Your task to perform on an android device: Open Maps and search for coffee Image 0: 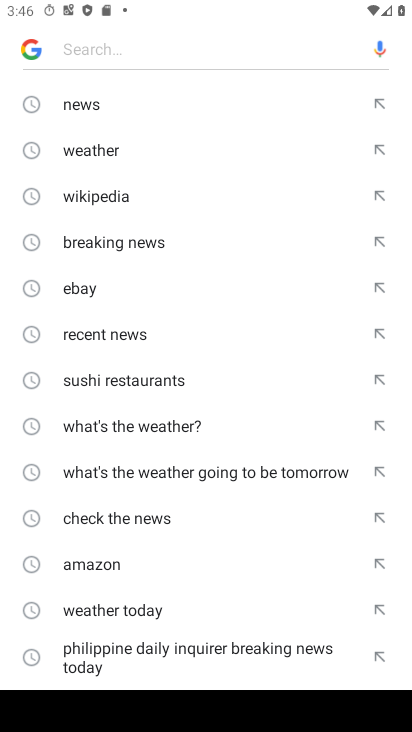
Step 0: press home button
Your task to perform on an android device: Open Maps and search for coffee Image 1: 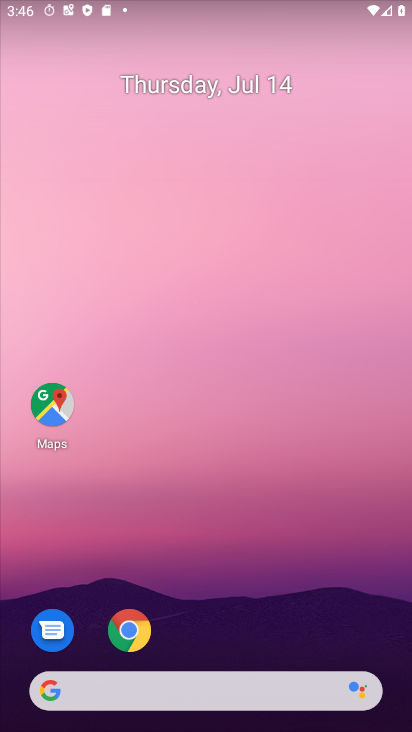
Step 1: drag from (248, 712) to (255, 169)
Your task to perform on an android device: Open Maps and search for coffee Image 2: 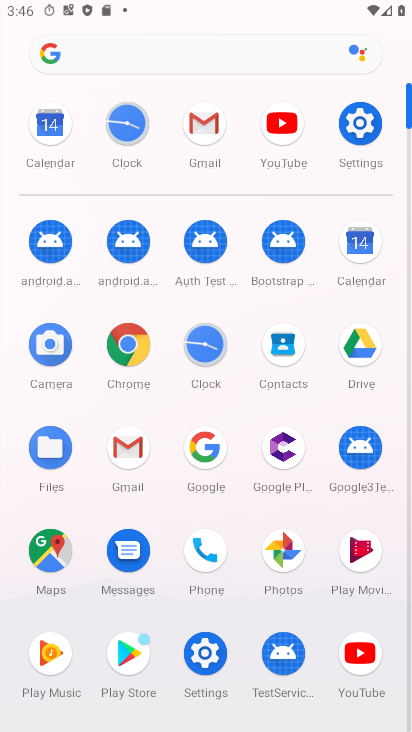
Step 2: click (60, 563)
Your task to perform on an android device: Open Maps and search for coffee Image 3: 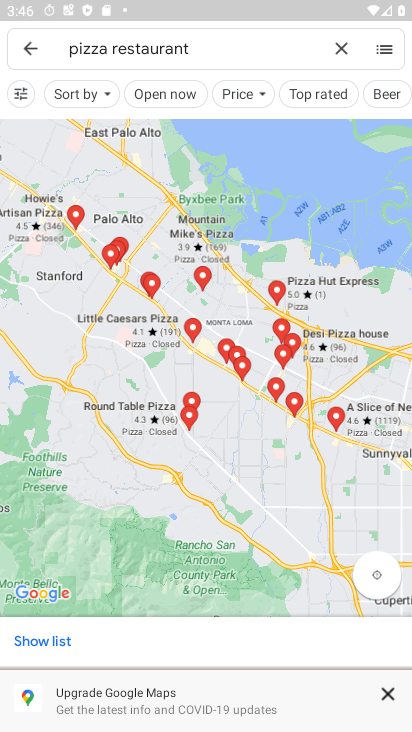
Step 3: click (339, 44)
Your task to perform on an android device: Open Maps and search for coffee Image 4: 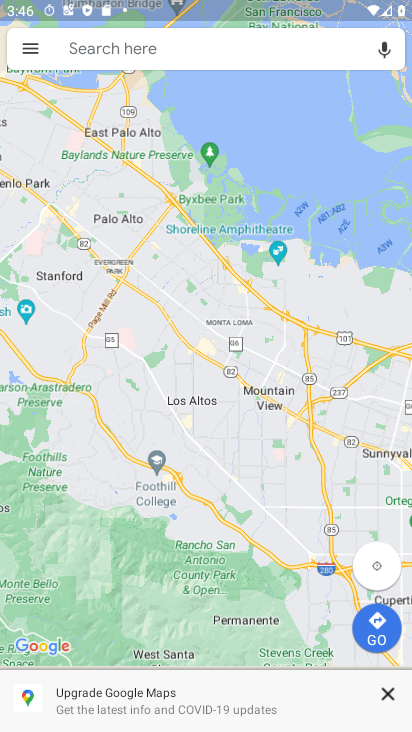
Step 4: click (221, 51)
Your task to perform on an android device: Open Maps and search for coffee Image 5: 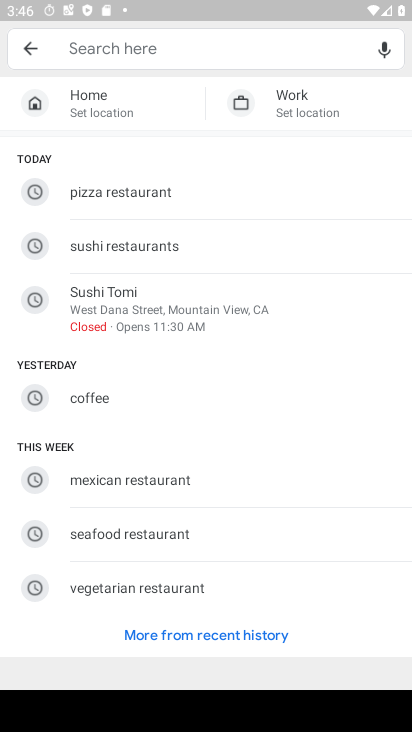
Step 5: type "coffee"
Your task to perform on an android device: Open Maps and search for coffee Image 6: 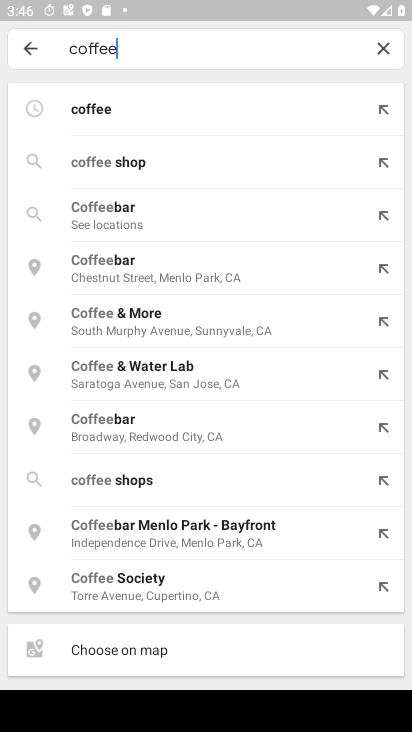
Step 6: click (96, 106)
Your task to perform on an android device: Open Maps and search for coffee Image 7: 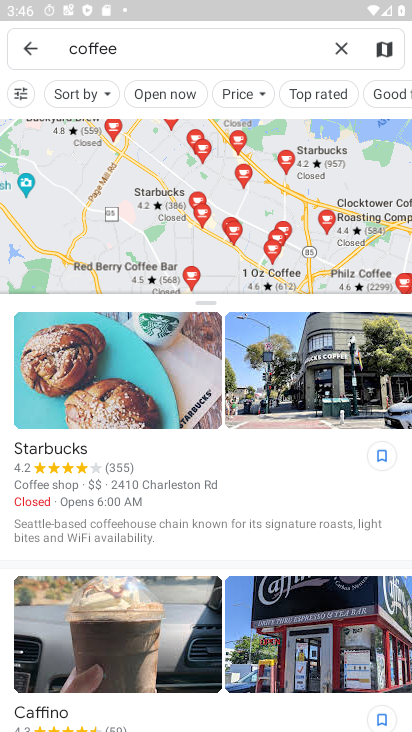
Step 7: task complete